Your task to perform on an android device: set the timer Image 0: 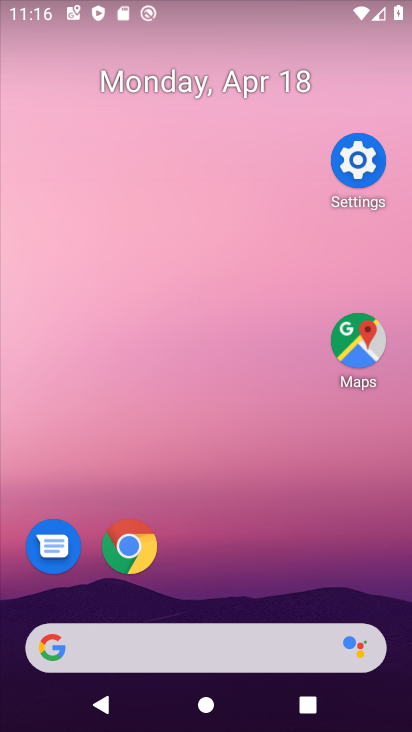
Step 0: drag from (282, 695) to (179, 21)
Your task to perform on an android device: set the timer Image 1: 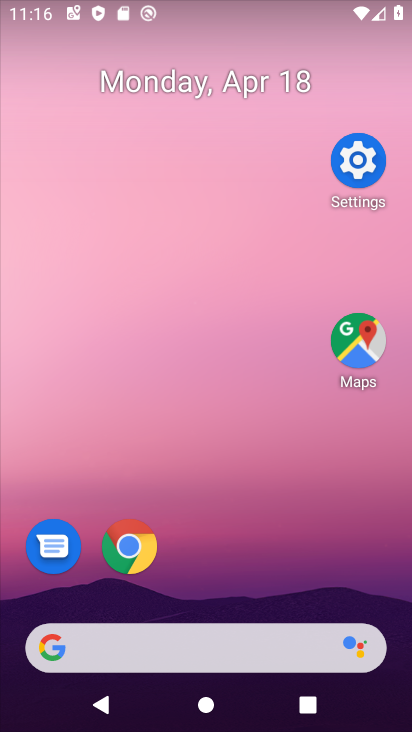
Step 1: drag from (265, 435) to (227, 78)
Your task to perform on an android device: set the timer Image 2: 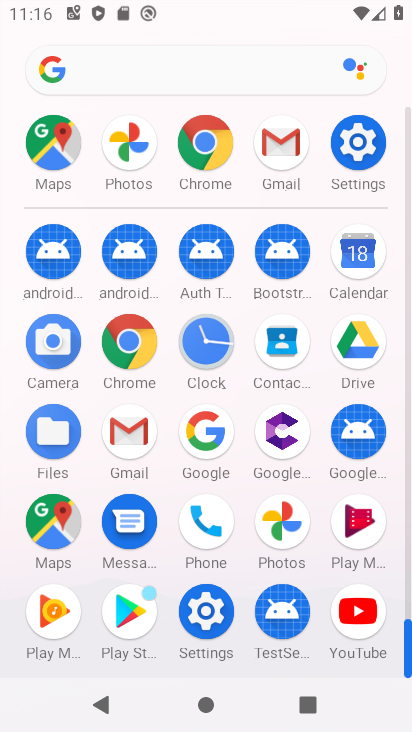
Step 2: click (200, 342)
Your task to perform on an android device: set the timer Image 3: 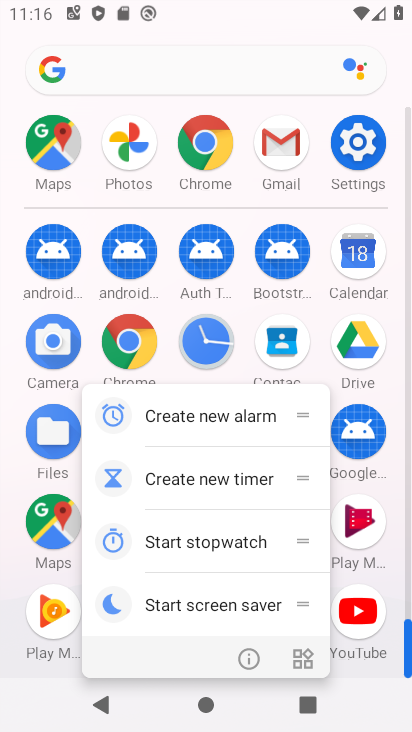
Step 3: click (200, 342)
Your task to perform on an android device: set the timer Image 4: 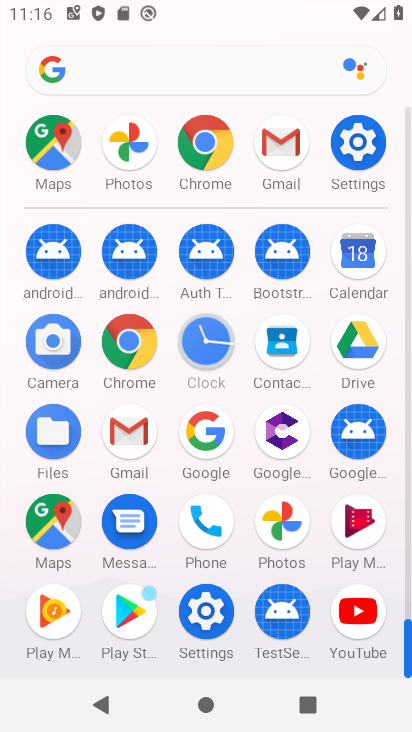
Step 4: click (200, 342)
Your task to perform on an android device: set the timer Image 5: 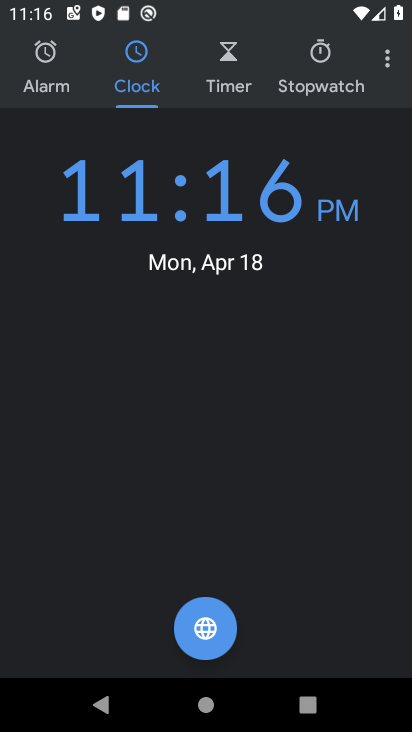
Step 5: click (234, 81)
Your task to perform on an android device: set the timer Image 6: 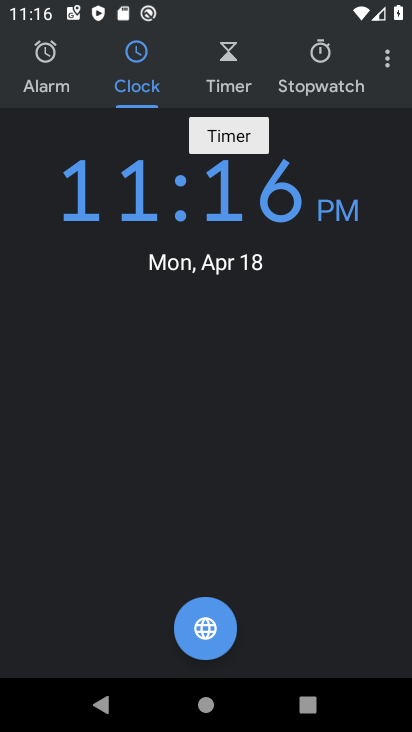
Step 6: click (232, 83)
Your task to perform on an android device: set the timer Image 7: 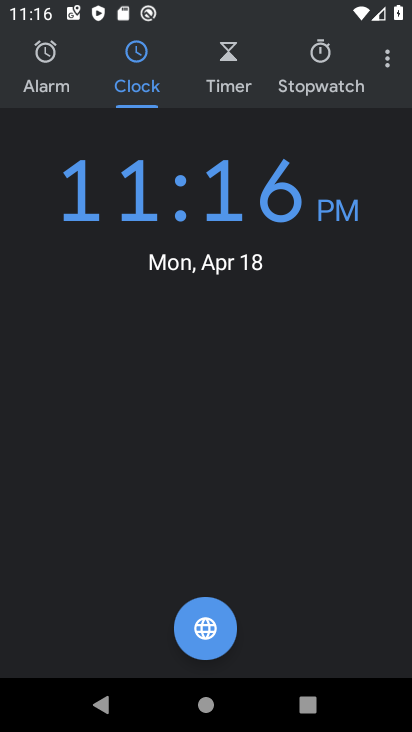
Step 7: drag from (232, 56) to (253, 129)
Your task to perform on an android device: set the timer Image 8: 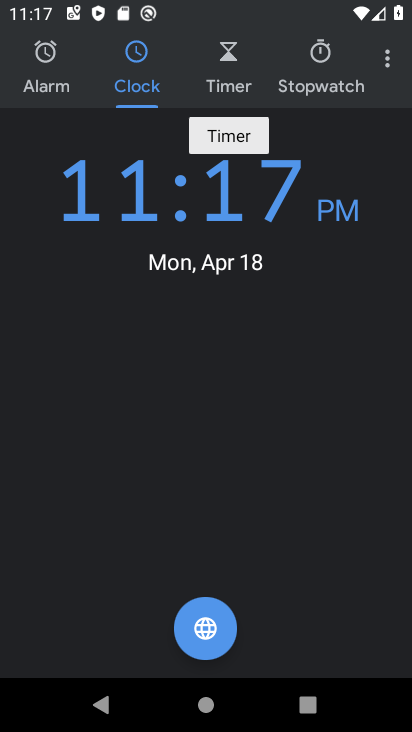
Step 8: drag from (237, 111) to (242, 145)
Your task to perform on an android device: set the timer Image 9: 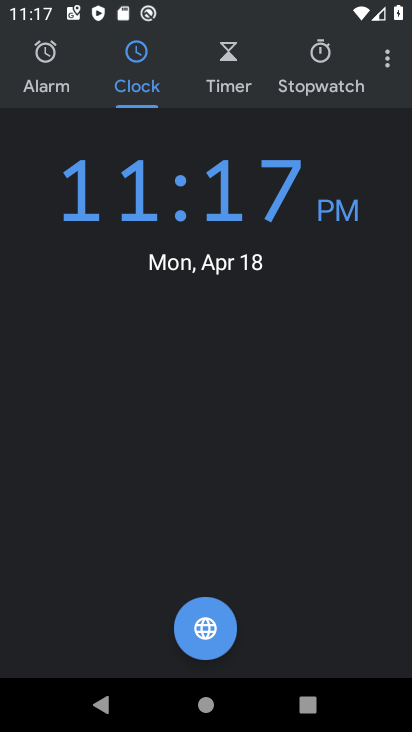
Step 9: click (235, 88)
Your task to perform on an android device: set the timer Image 10: 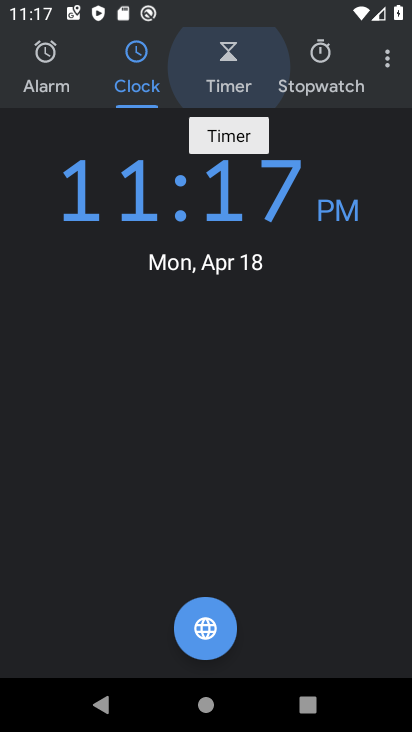
Step 10: click (225, 56)
Your task to perform on an android device: set the timer Image 11: 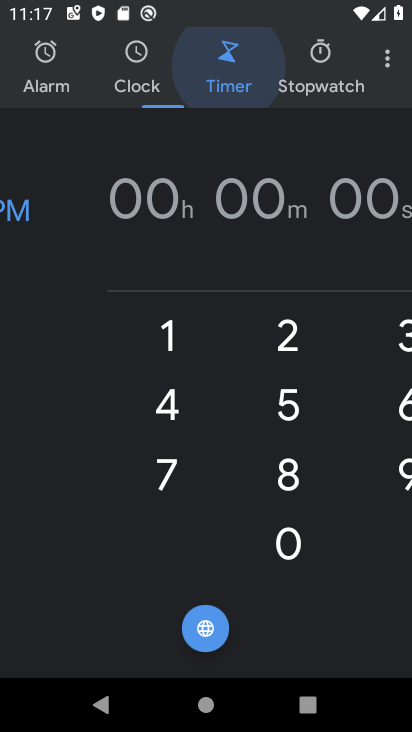
Step 11: click (225, 56)
Your task to perform on an android device: set the timer Image 12: 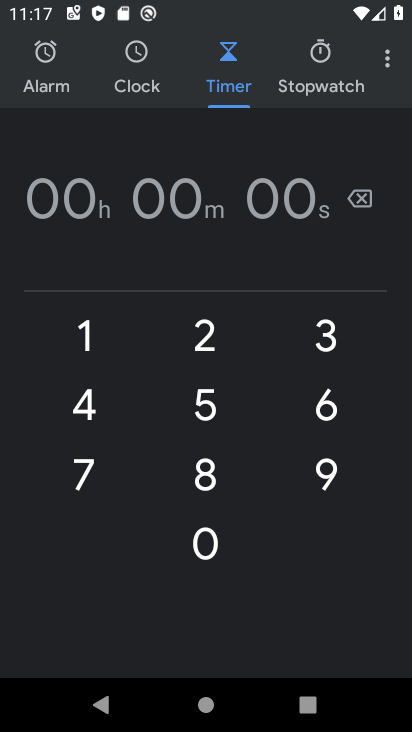
Step 12: click (210, 461)
Your task to perform on an android device: set the timer Image 13: 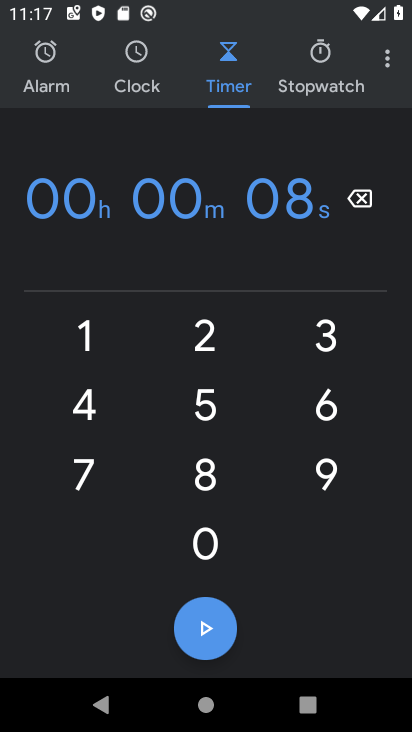
Step 13: click (209, 631)
Your task to perform on an android device: set the timer Image 14: 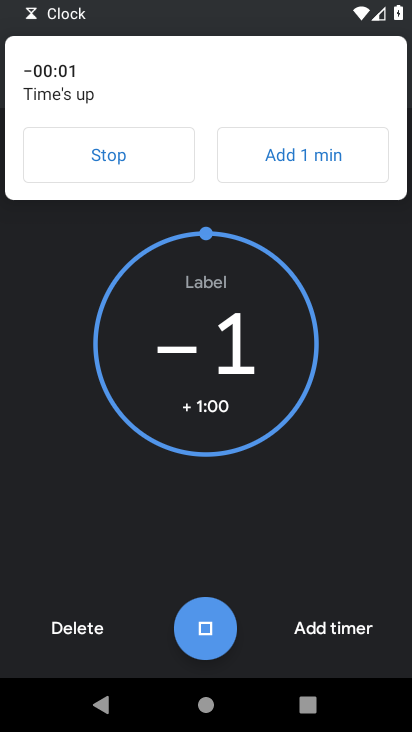
Step 14: click (199, 629)
Your task to perform on an android device: set the timer Image 15: 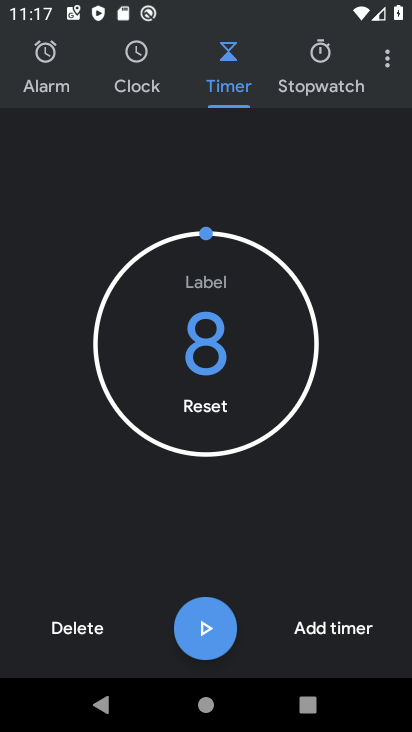
Step 15: task complete